Your task to perform on an android device: open chrome and create a bookmark for the current page Image 0: 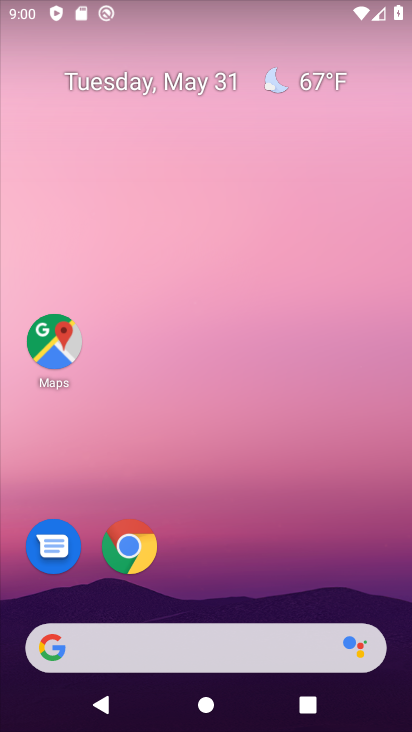
Step 0: click (123, 536)
Your task to perform on an android device: open chrome and create a bookmark for the current page Image 1: 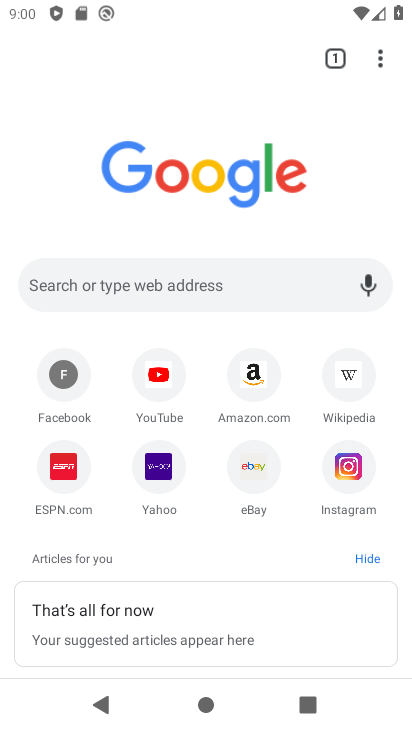
Step 1: click (384, 64)
Your task to perform on an android device: open chrome and create a bookmark for the current page Image 2: 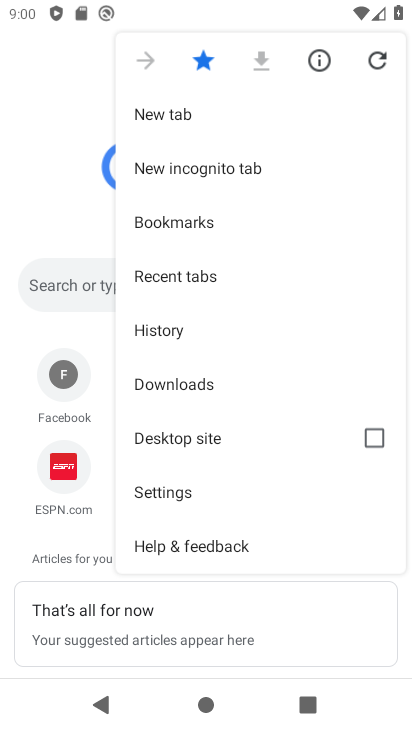
Step 2: task complete